Your task to perform on an android device: Open Amazon Image 0: 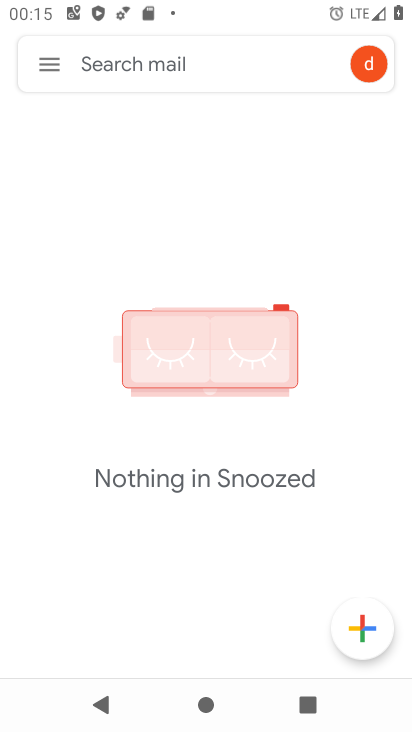
Step 0: press home button
Your task to perform on an android device: Open Amazon Image 1: 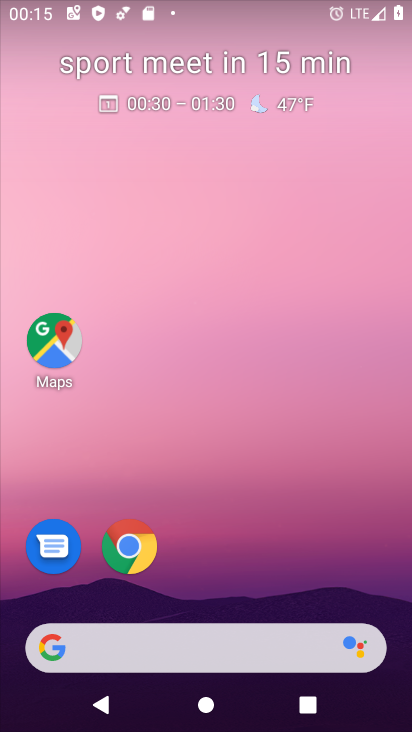
Step 1: click (131, 551)
Your task to perform on an android device: Open Amazon Image 2: 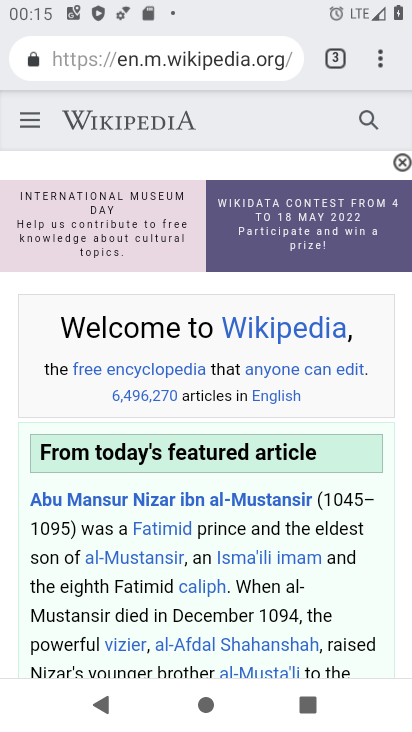
Step 2: click (127, 66)
Your task to perform on an android device: Open Amazon Image 3: 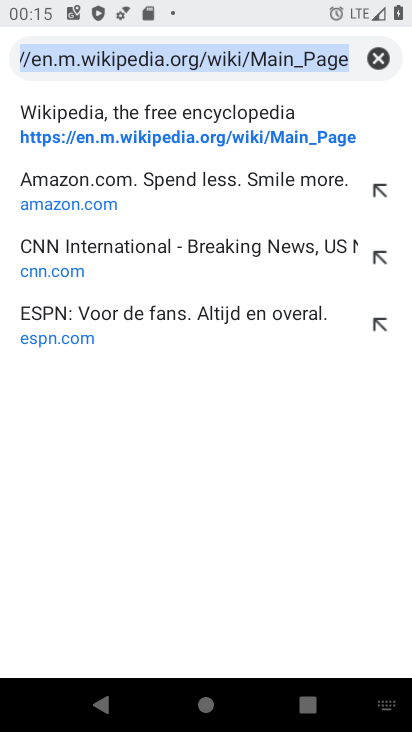
Step 3: click (92, 194)
Your task to perform on an android device: Open Amazon Image 4: 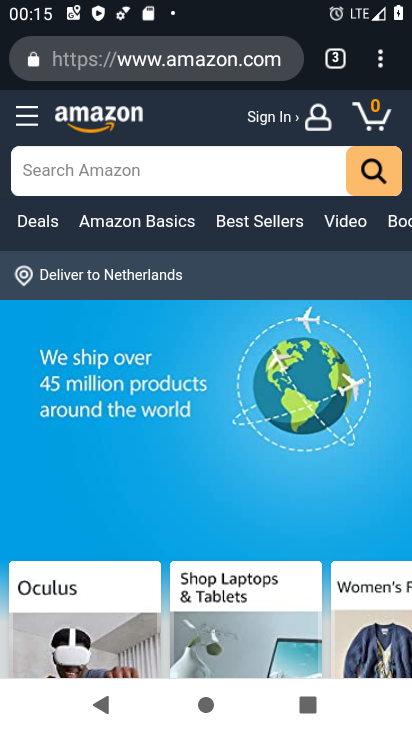
Step 4: task complete